Your task to perform on an android device: clear history in the chrome app Image 0: 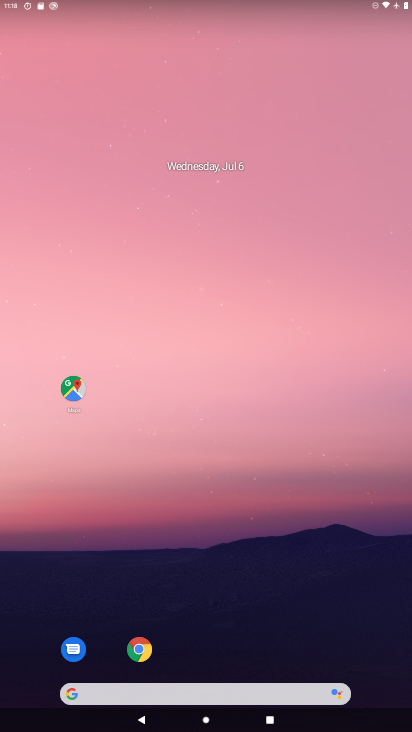
Step 0: click (120, 647)
Your task to perform on an android device: clear history in the chrome app Image 1: 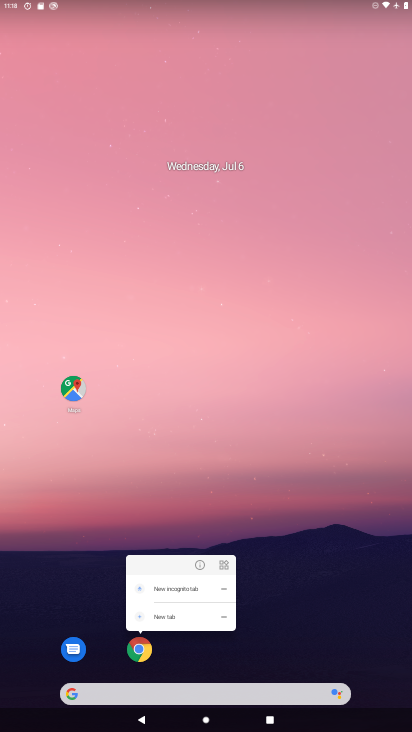
Step 1: click (134, 646)
Your task to perform on an android device: clear history in the chrome app Image 2: 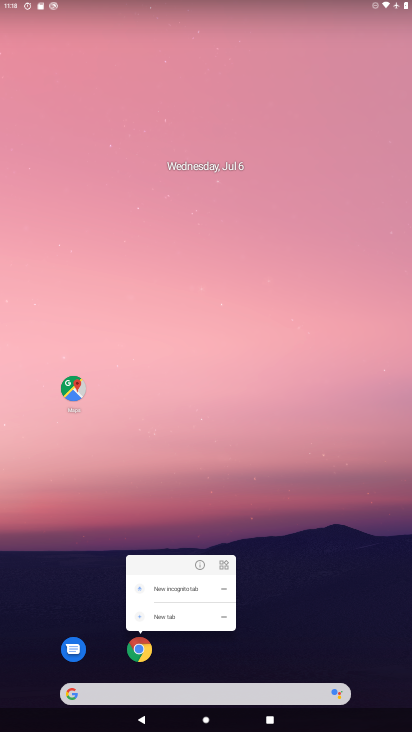
Step 2: click (134, 646)
Your task to perform on an android device: clear history in the chrome app Image 3: 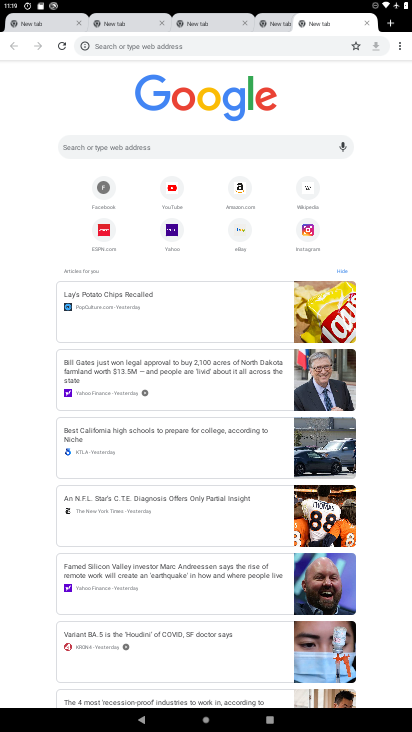
Step 3: click (400, 40)
Your task to perform on an android device: clear history in the chrome app Image 4: 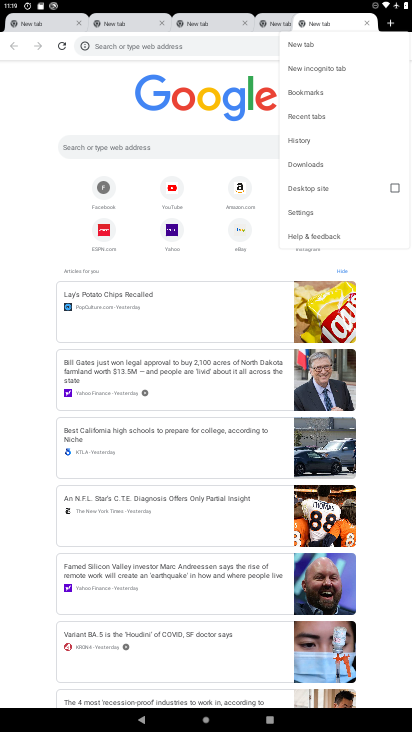
Step 4: click (307, 139)
Your task to perform on an android device: clear history in the chrome app Image 5: 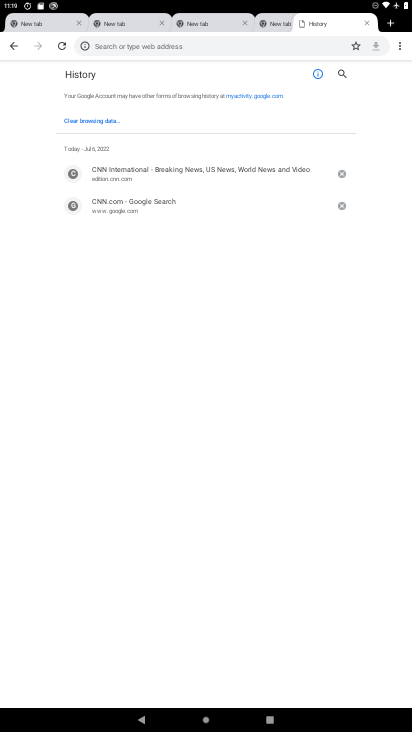
Step 5: click (92, 113)
Your task to perform on an android device: clear history in the chrome app Image 6: 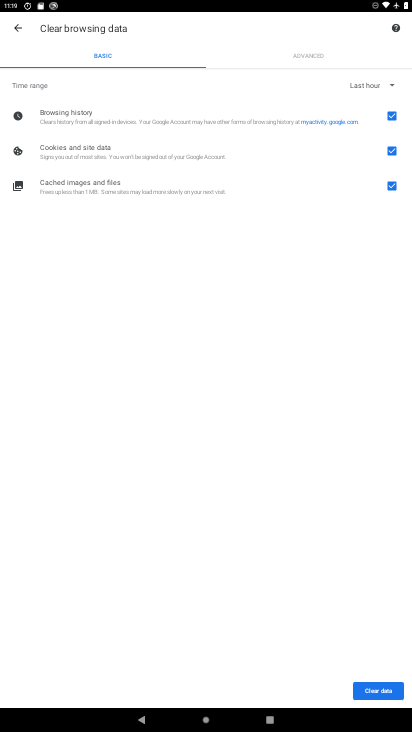
Step 6: click (387, 689)
Your task to perform on an android device: clear history in the chrome app Image 7: 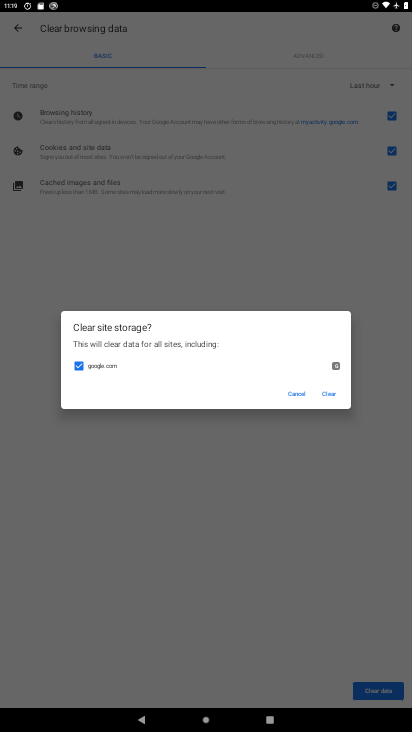
Step 7: click (325, 391)
Your task to perform on an android device: clear history in the chrome app Image 8: 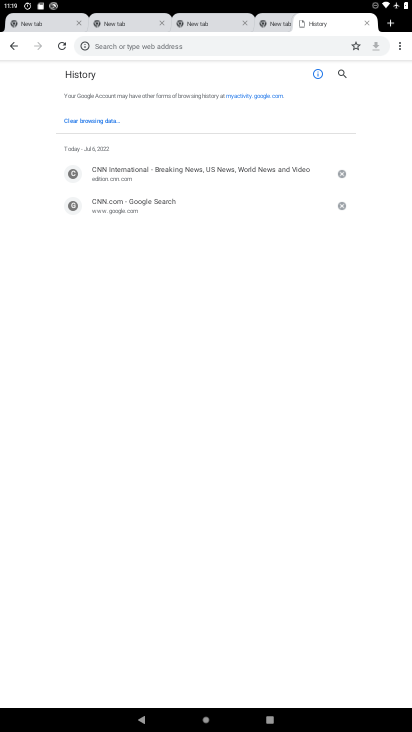
Step 8: click (349, 175)
Your task to perform on an android device: clear history in the chrome app Image 9: 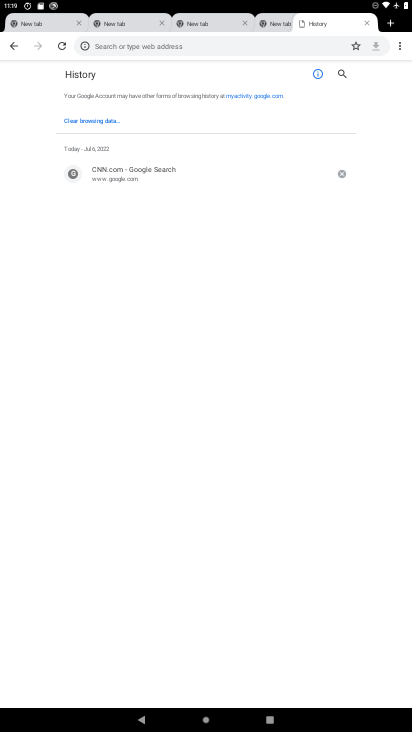
Step 9: click (340, 177)
Your task to perform on an android device: clear history in the chrome app Image 10: 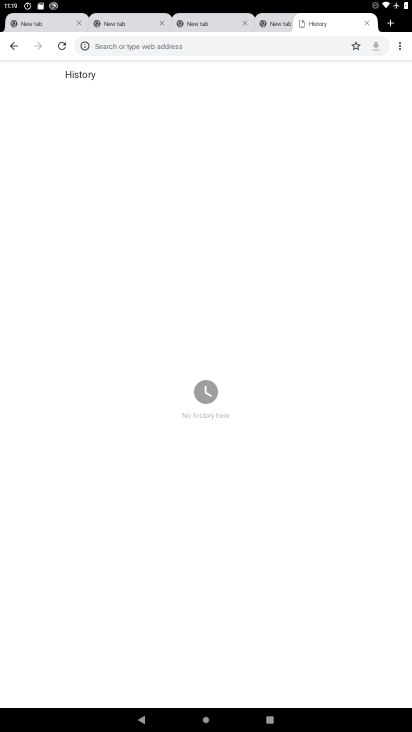
Step 10: task complete